Your task to perform on an android device: add a contact Image 0: 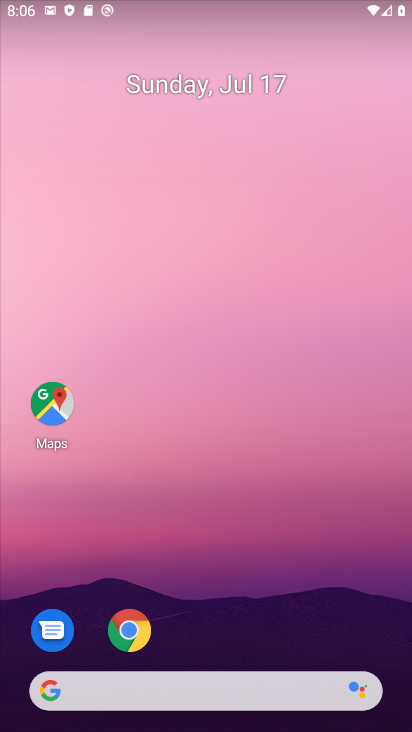
Step 0: drag from (209, 663) to (314, 4)
Your task to perform on an android device: add a contact Image 1: 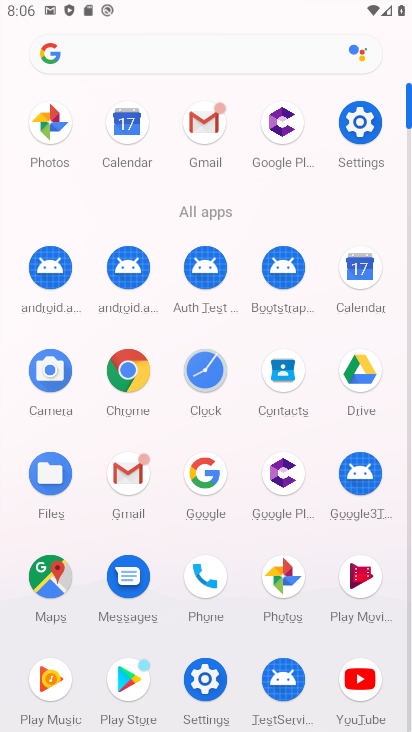
Step 1: click (281, 376)
Your task to perform on an android device: add a contact Image 2: 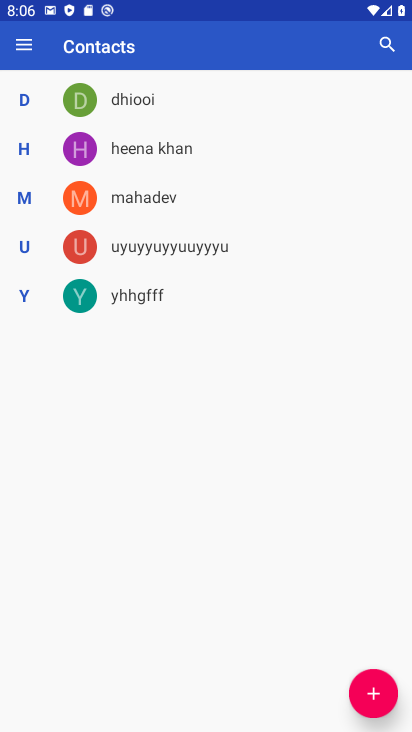
Step 2: click (368, 707)
Your task to perform on an android device: add a contact Image 3: 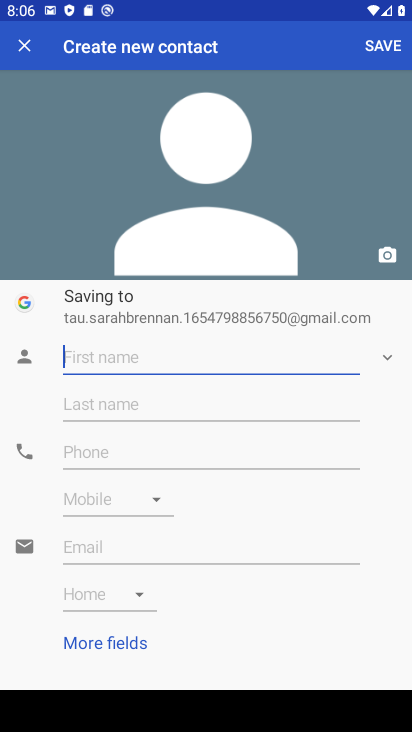
Step 3: type "famel"
Your task to perform on an android device: add a contact Image 4: 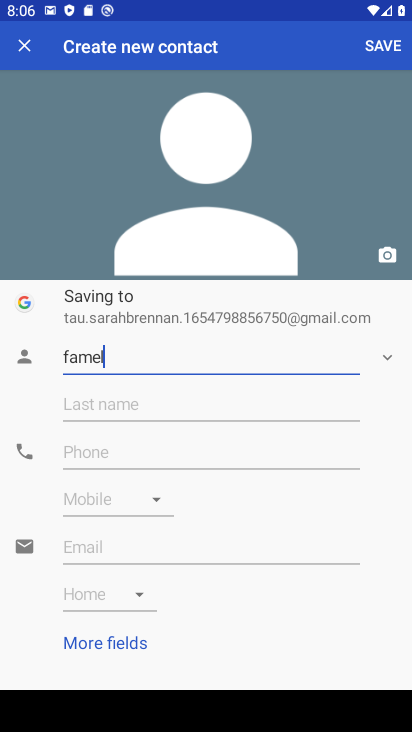
Step 4: click (371, 38)
Your task to perform on an android device: add a contact Image 5: 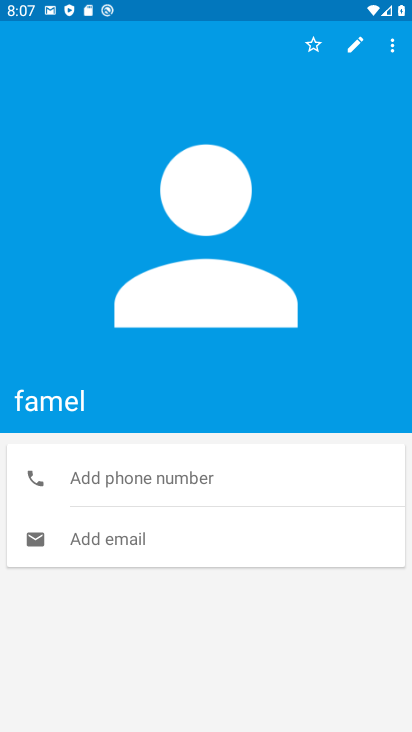
Step 5: task complete